Your task to perform on an android device: What's the weather today? Image 0: 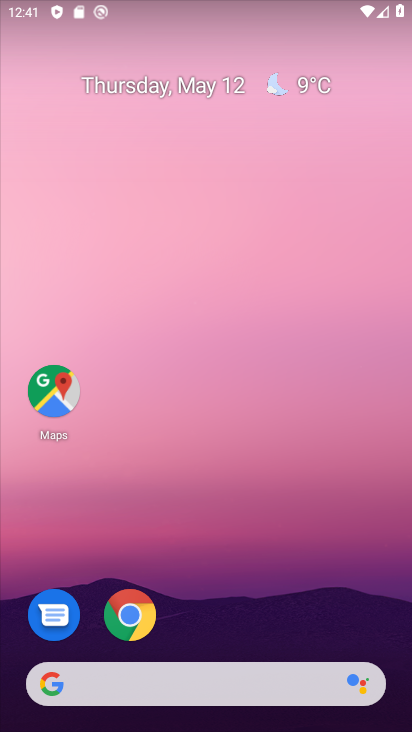
Step 0: drag from (191, 649) to (213, 179)
Your task to perform on an android device: What's the weather today? Image 1: 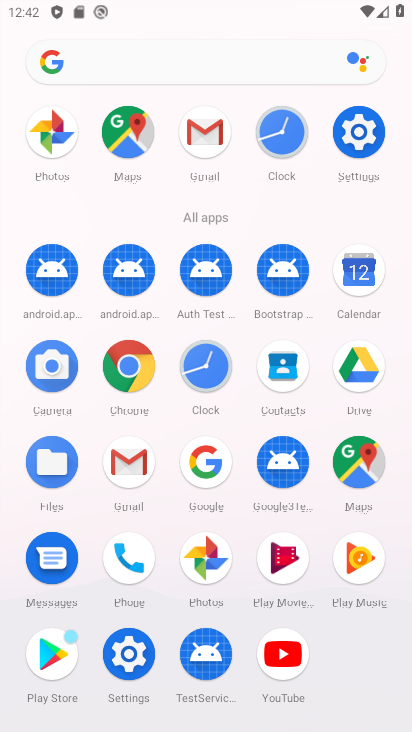
Step 1: click (116, 376)
Your task to perform on an android device: What's the weather today? Image 2: 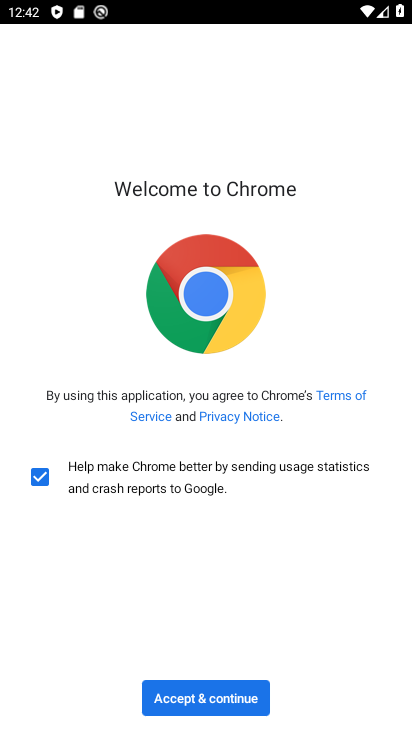
Step 2: click (212, 707)
Your task to perform on an android device: What's the weather today? Image 3: 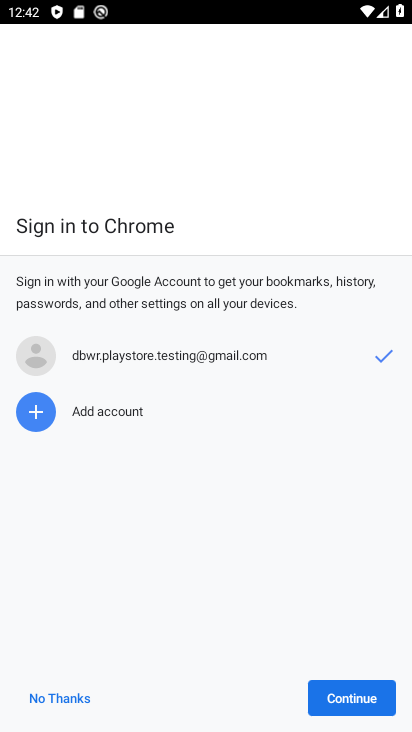
Step 3: click (79, 701)
Your task to perform on an android device: What's the weather today? Image 4: 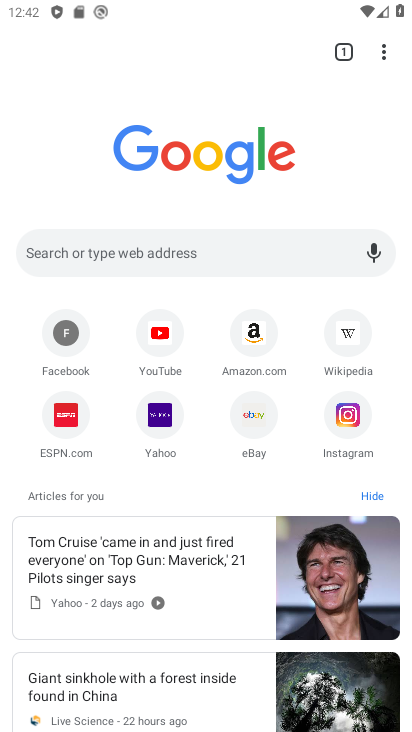
Step 4: click (186, 254)
Your task to perform on an android device: What's the weather today? Image 5: 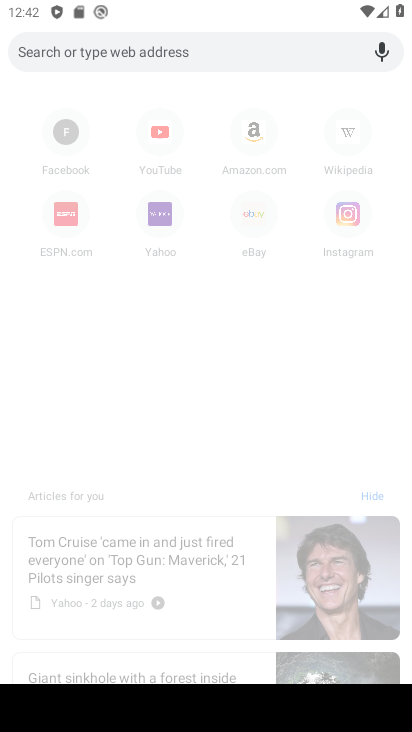
Step 5: type "weather today"
Your task to perform on an android device: What's the weather today? Image 6: 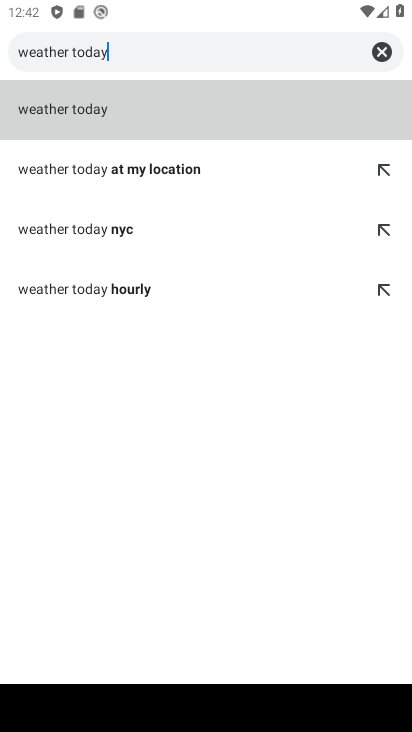
Step 6: click (67, 109)
Your task to perform on an android device: What's the weather today? Image 7: 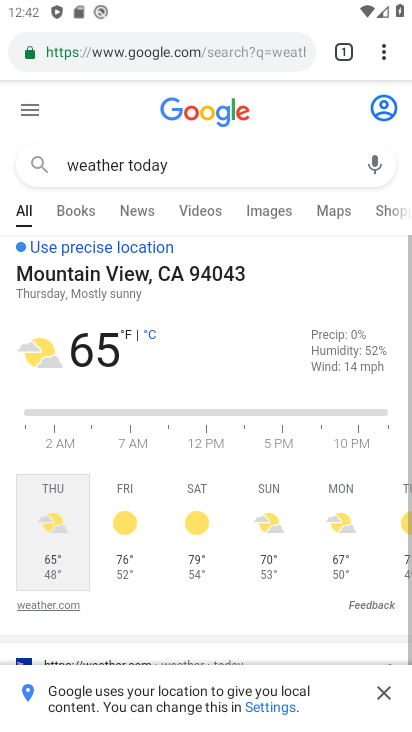
Step 7: task complete